Your task to perform on an android device: change the clock display to digital Image 0: 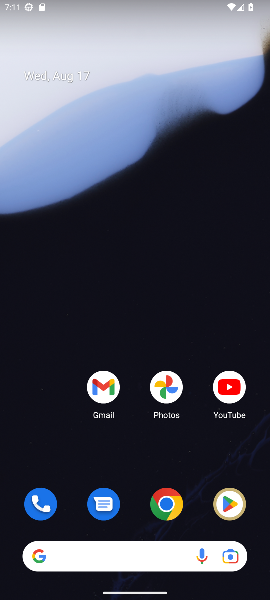
Step 0: drag from (139, 473) to (237, 92)
Your task to perform on an android device: change the clock display to digital Image 1: 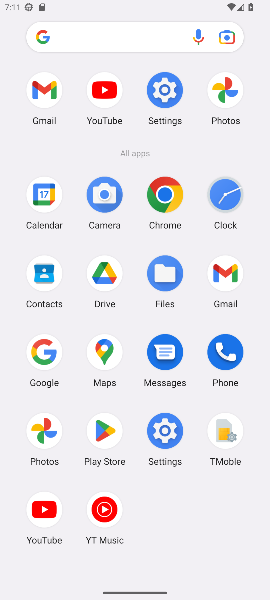
Step 1: click (224, 208)
Your task to perform on an android device: change the clock display to digital Image 2: 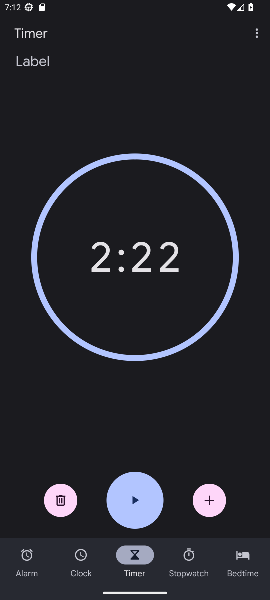
Step 2: click (254, 33)
Your task to perform on an android device: change the clock display to digital Image 3: 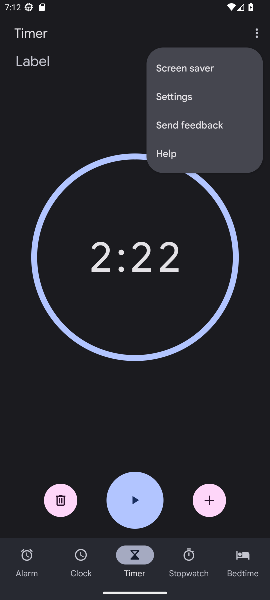
Step 3: click (210, 102)
Your task to perform on an android device: change the clock display to digital Image 4: 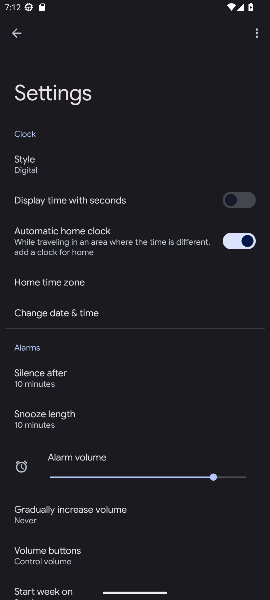
Step 4: task complete